Your task to perform on an android device: change text size in settings app Image 0: 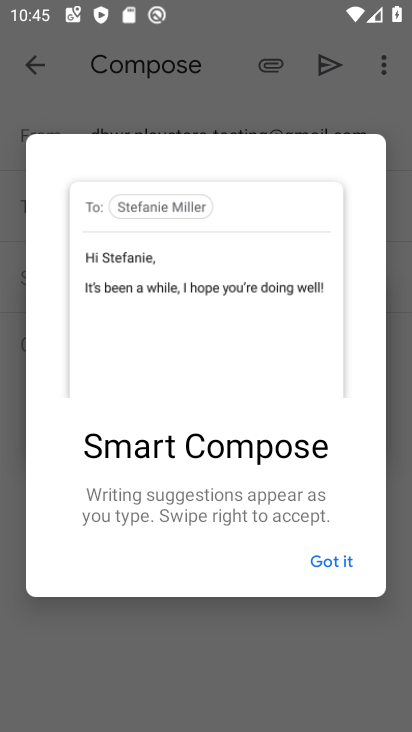
Step 0: press home button
Your task to perform on an android device: change text size in settings app Image 1: 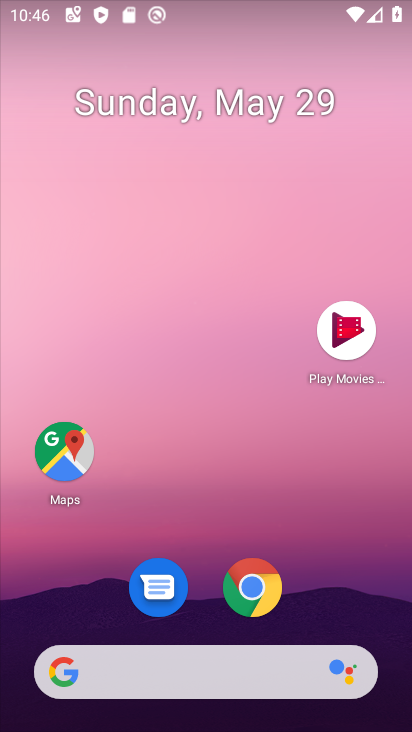
Step 1: drag from (328, 563) to (336, 1)
Your task to perform on an android device: change text size in settings app Image 2: 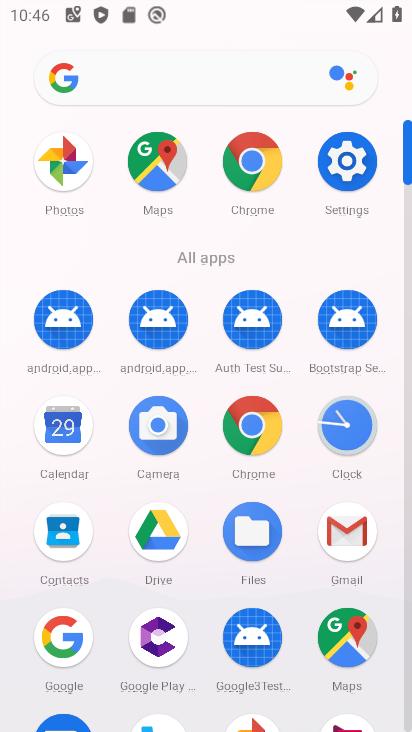
Step 2: click (348, 167)
Your task to perform on an android device: change text size in settings app Image 3: 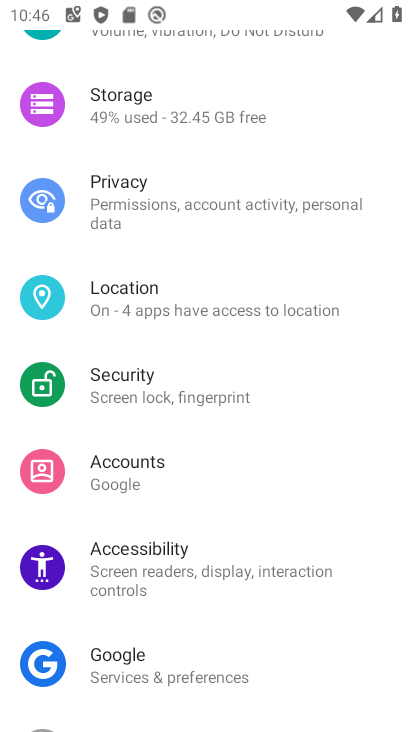
Step 3: drag from (325, 147) to (273, 637)
Your task to perform on an android device: change text size in settings app Image 4: 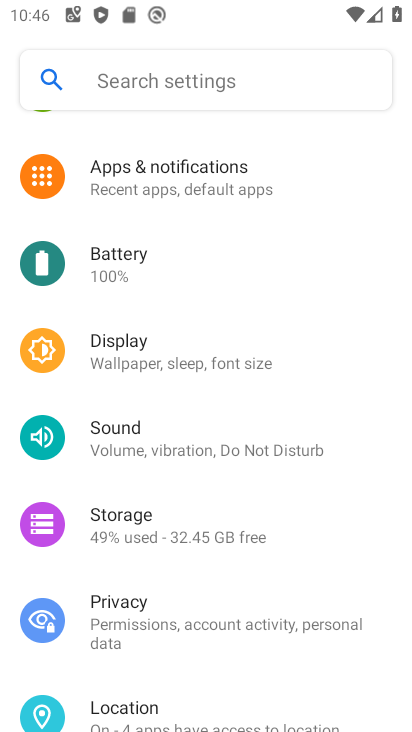
Step 4: click (172, 376)
Your task to perform on an android device: change text size in settings app Image 5: 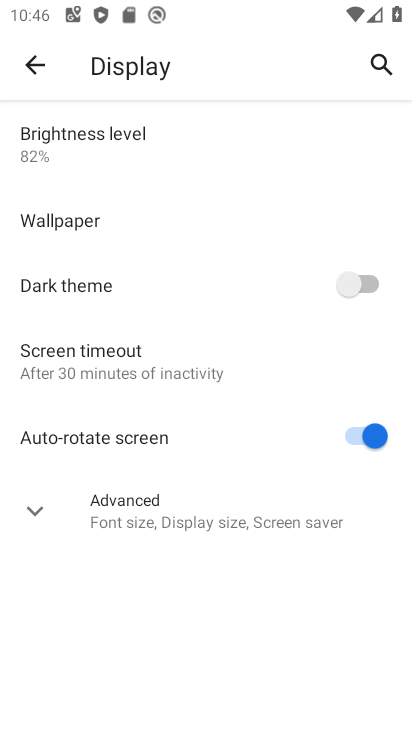
Step 5: click (273, 518)
Your task to perform on an android device: change text size in settings app Image 6: 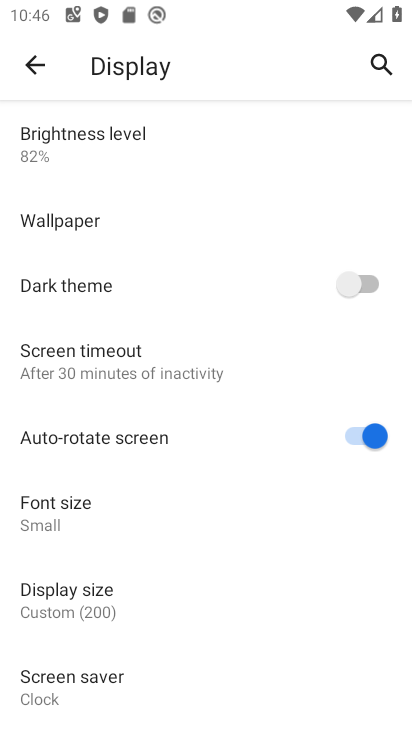
Step 6: click (254, 505)
Your task to perform on an android device: change text size in settings app Image 7: 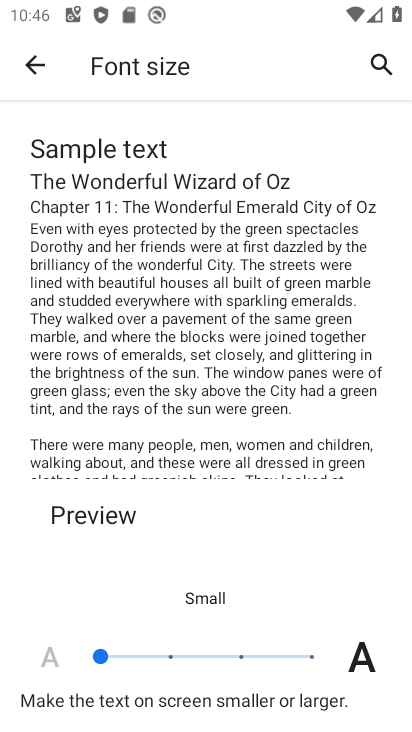
Step 7: click (171, 639)
Your task to perform on an android device: change text size in settings app Image 8: 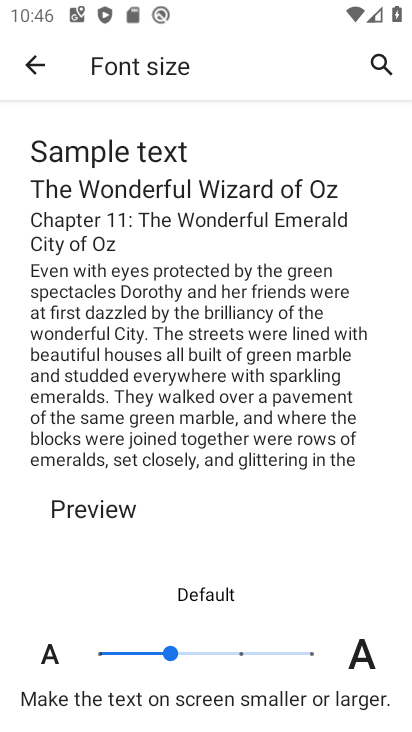
Step 8: task complete